Your task to perform on an android device: Open battery settings Image 0: 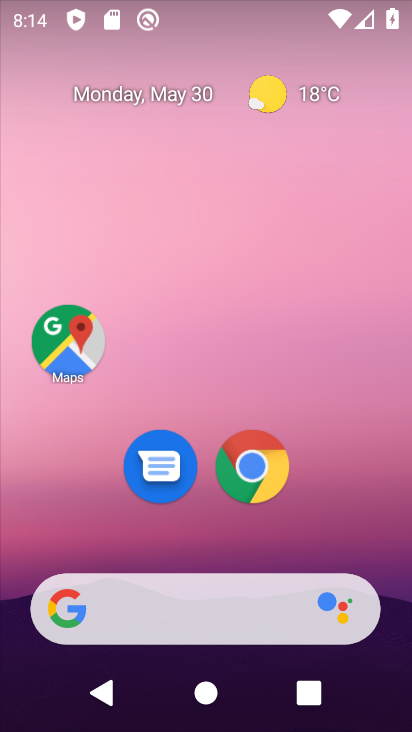
Step 0: drag from (329, 525) to (388, 82)
Your task to perform on an android device: Open battery settings Image 1: 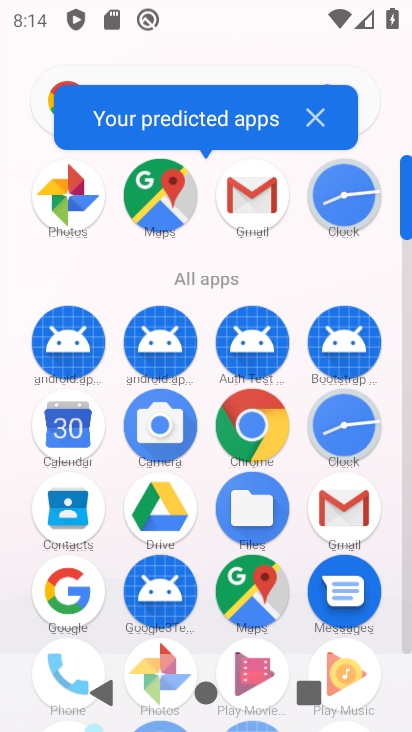
Step 1: drag from (203, 272) to (241, 42)
Your task to perform on an android device: Open battery settings Image 2: 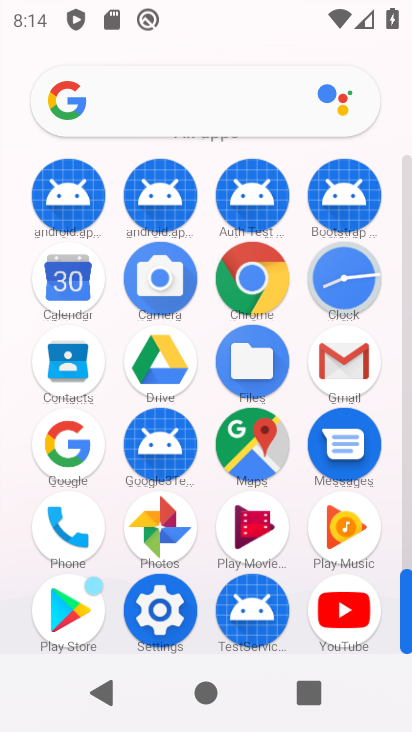
Step 2: click (159, 612)
Your task to perform on an android device: Open battery settings Image 3: 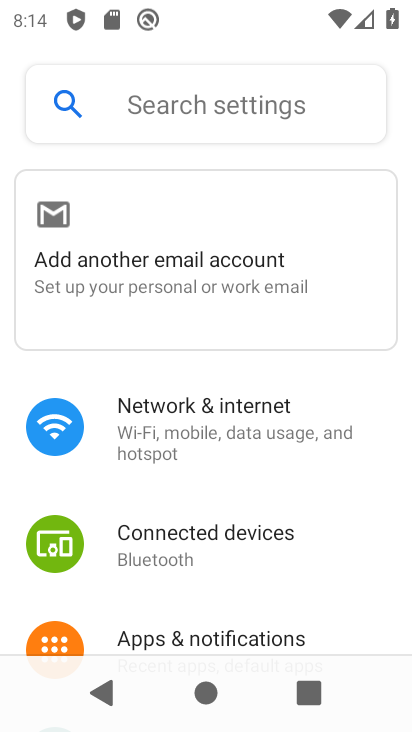
Step 3: drag from (281, 590) to (292, 166)
Your task to perform on an android device: Open battery settings Image 4: 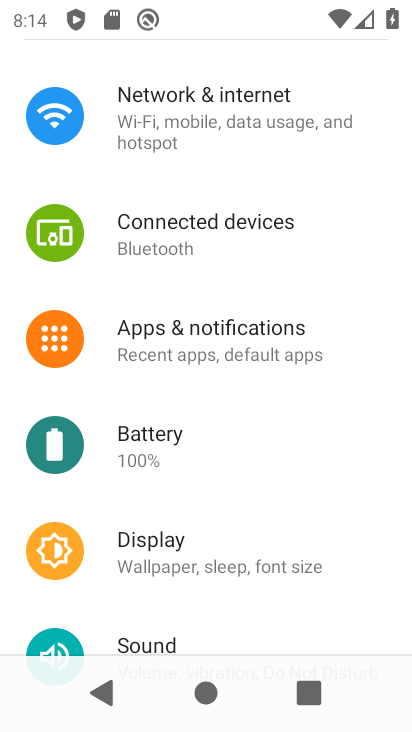
Step 4: click (143, 439)
Your task to perform on an android device: Open battery settings Image 5: 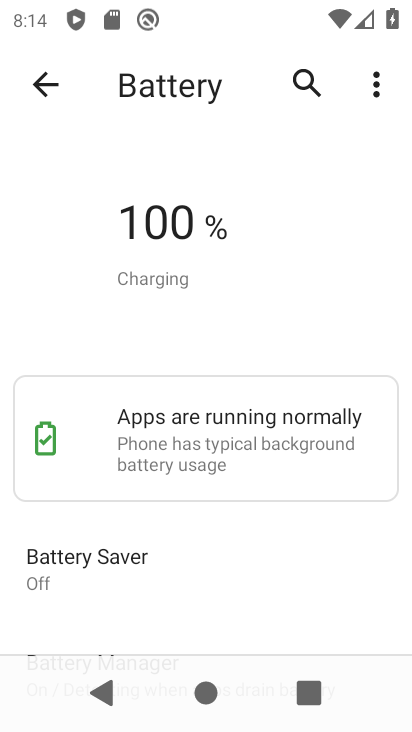
Step 5: task complete